Your task to perform on an android device: refresh tabs in the chrome app Image 0: 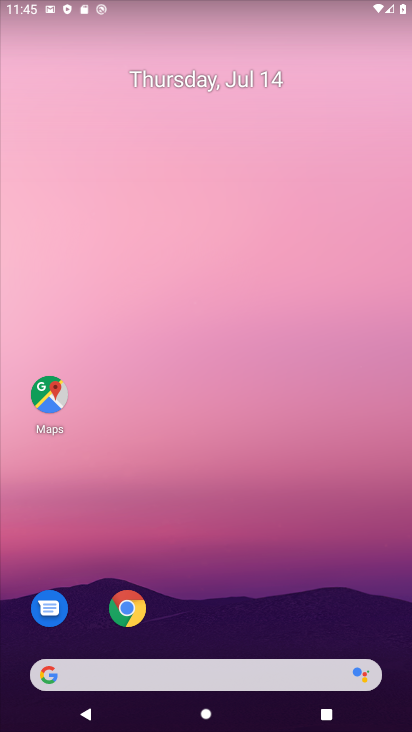
Step 0: click (125, 614)
Your task to perform on an android device: refresh tabs in the chrome app Image 1: 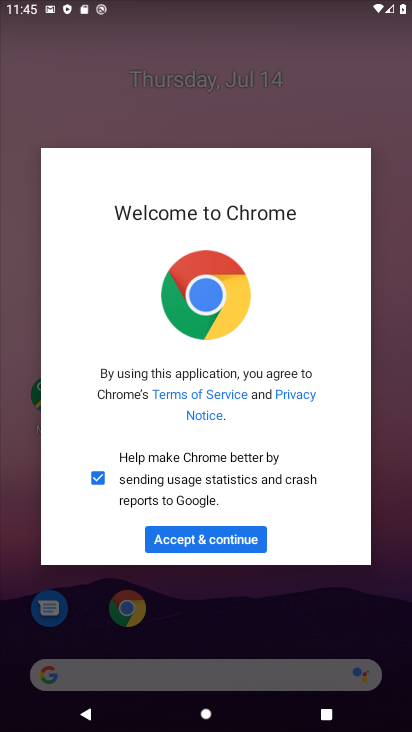
Step 1: click (205, 543)
Your task to perform on an android device: refresh tabs in the chrome app Image 2: 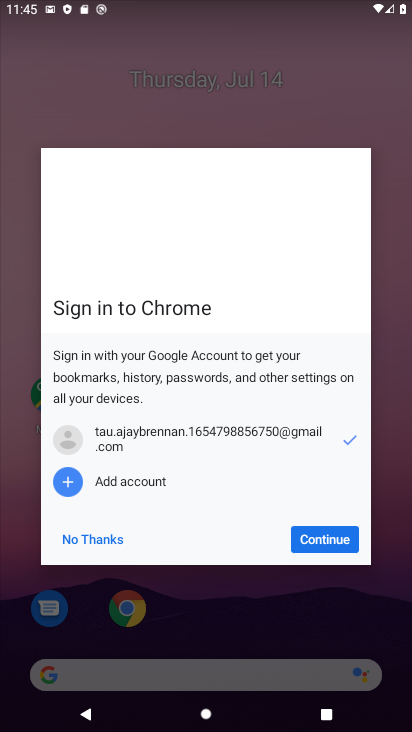
Step 2: click (331, 538)
Your task to perform on an android device: refresh tabs in the chrome app Image 3: 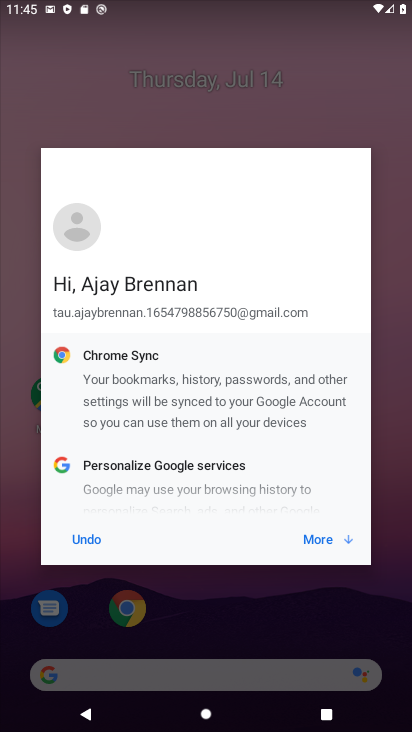
Step 3: click (331, 540)
Your task to perform on an android device: refresh tabs in the chrome app Image 4: 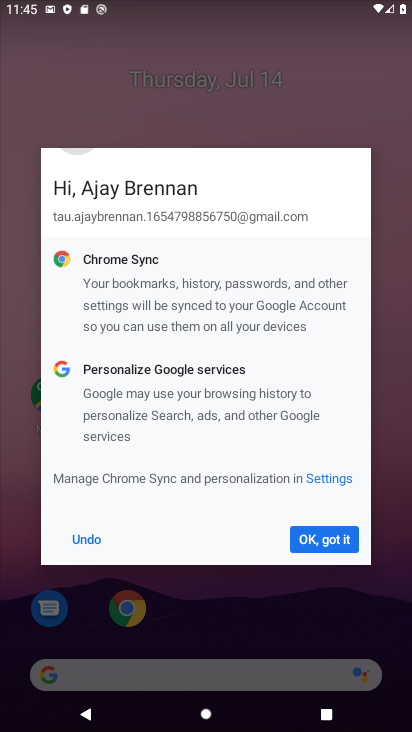
Step 4: click (328, 542)
Your task to perform on an android device: refresh tabs in the chrome app Image 5: 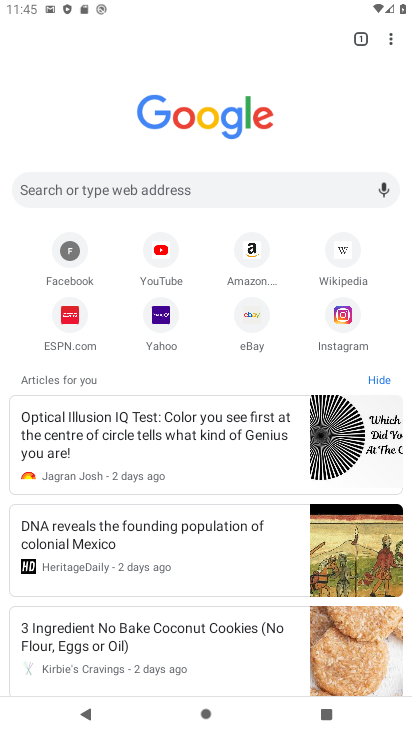
Step 5: click (391, 44)
Your task to perform on an android device: refresh tabs in the chrome app Image 6: 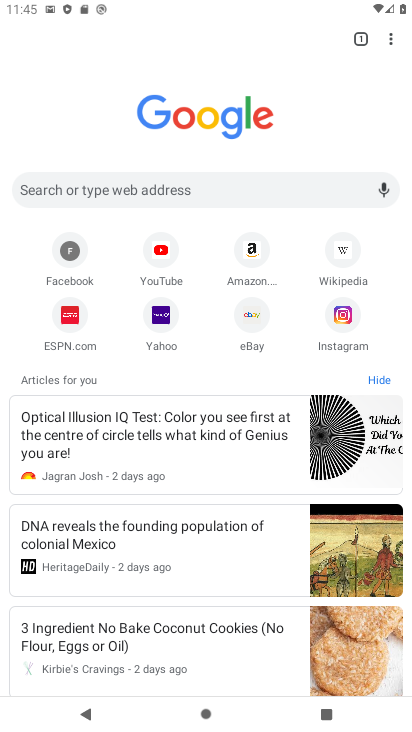
Step 6: task complete